Your task to perform on an android device: show emergency info Image 0: 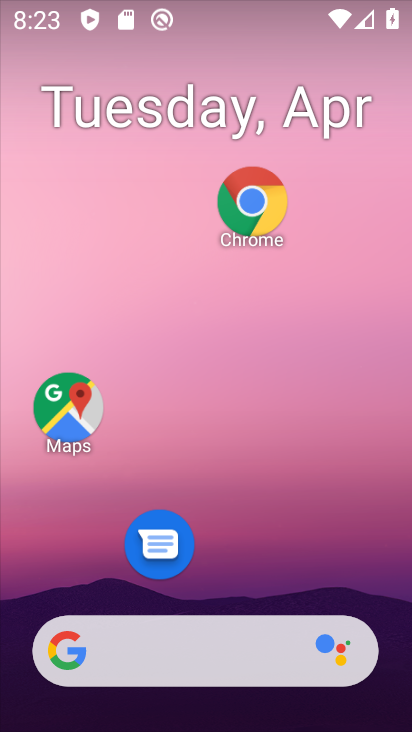
Step 0: drag from (277, 453) to (328, 54)
Your task to perform on an android device: show emergency info Image 1: 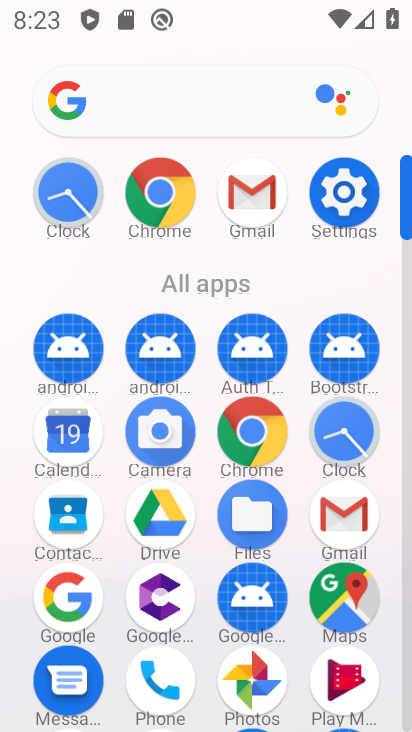
Step 1: click (346, 198)
Your task to perform on an android device: show emergency info Image 2: 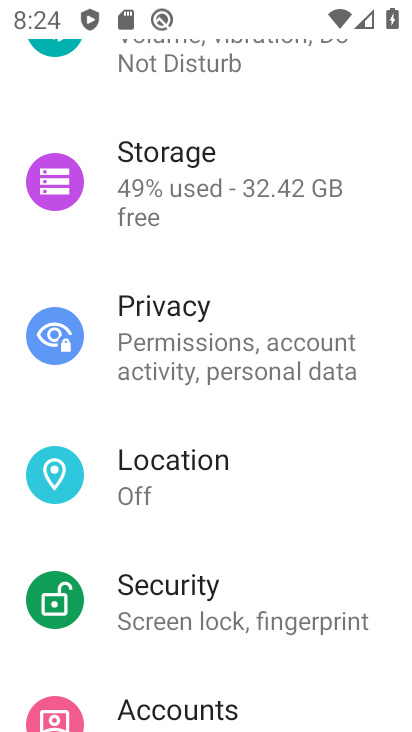
Step 2: drag from (224, 615) to (284, 122)
Your task to perform on an android device: show emergency info Image 3: 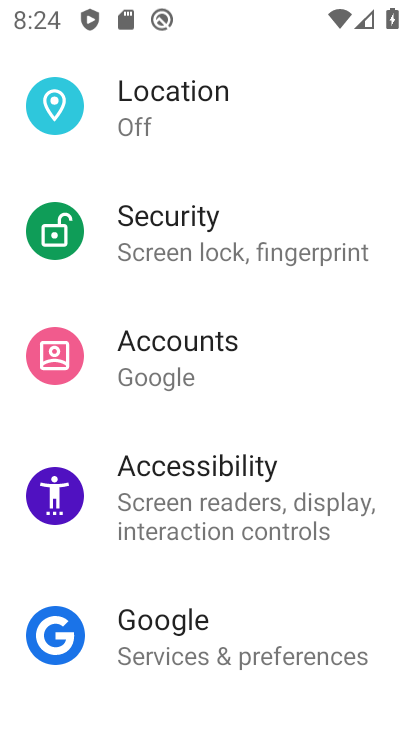
Step 3: drag from (190, 585) to (246, 190)
Your task to perform on an android device: show emergency info Image 4: 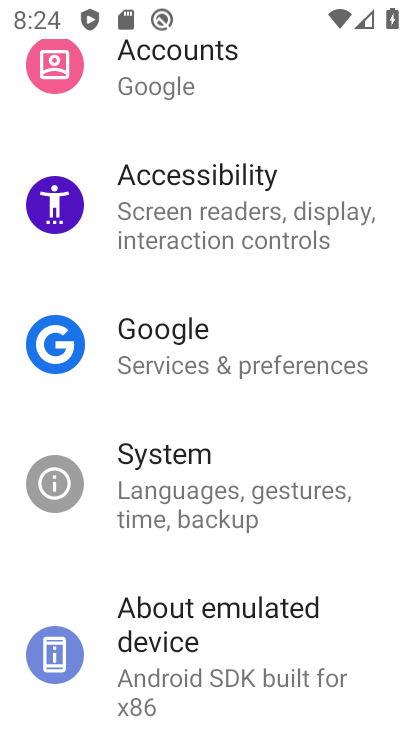
Step 4: drag from (235, 606) to (316, 210)
Your task to perform on an android device: show emergency info Image 5: 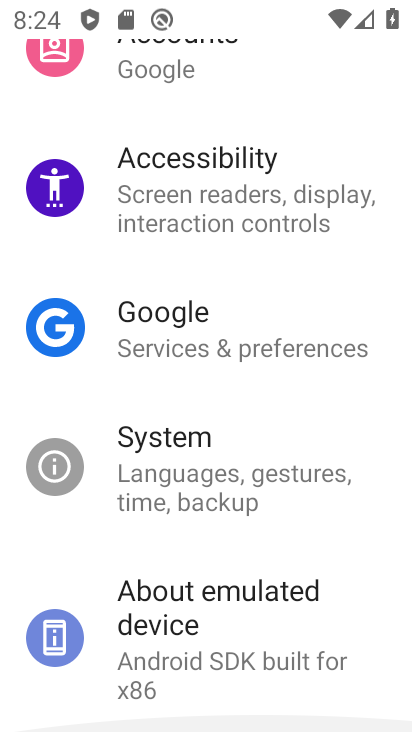
Step 5: drag from (235, 475) to (288, 185)
Your task to perform on an android device: show emergency info Image 6: 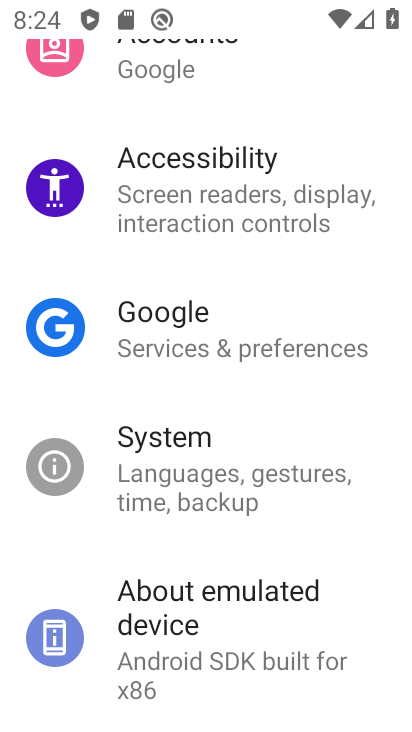
Step 6: drag from (220, 632) to (378, 137)
Your task to perform on an android device: show emergency info Image 7: 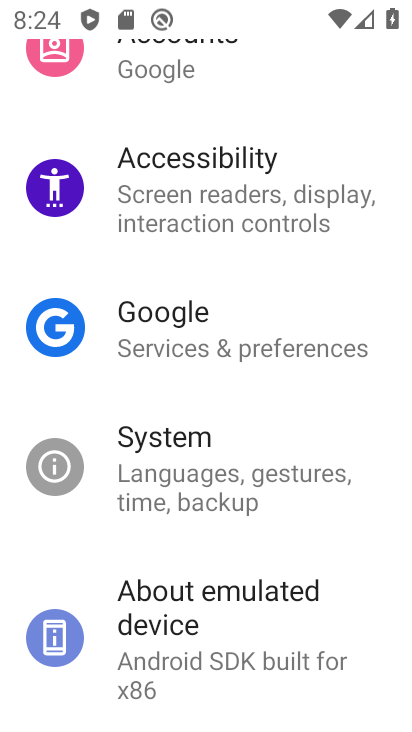
Step 7: click (240, 628)
Your task to perform on an android device: show emergency info Image 8: 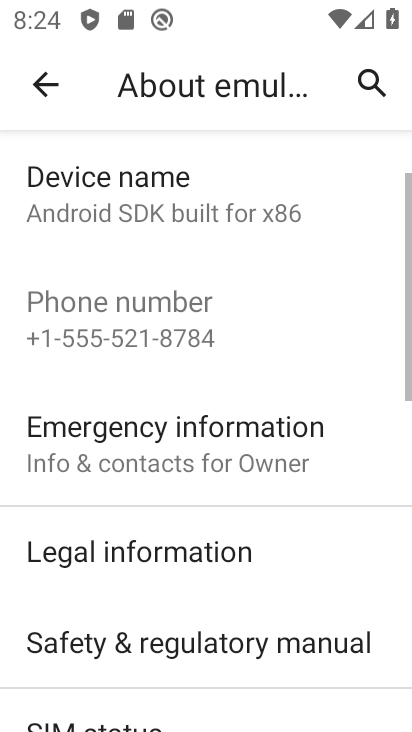
Step 8: click (223, 450)
Your task to perform on an android device: show emergency info Image 9: 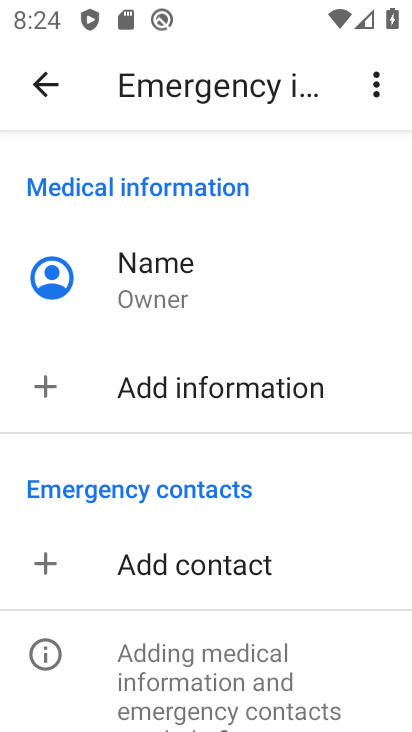
Step 9: task complete